Your task to perform on an android device: Show me popular games on the Play Store Image 0: 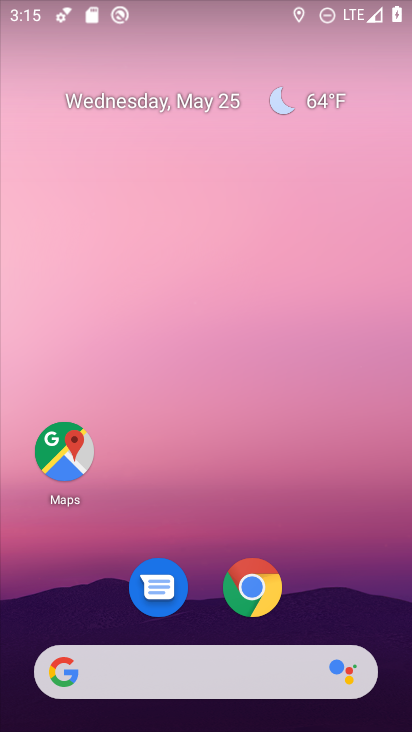
Step 0: drag from (339, 596) to (211, 206)
Your task to perform on an android device: Show me popular games on the Play Store Image 1: 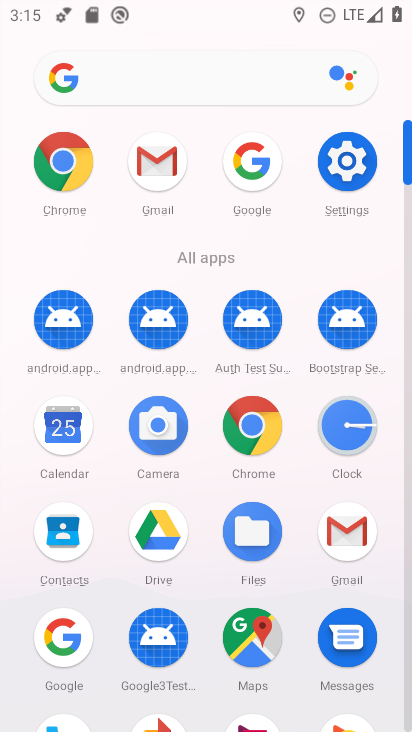
Step 1: click (409, 676)
Your task to perform on an android device: Show me popular games on the Play Store Image 2: 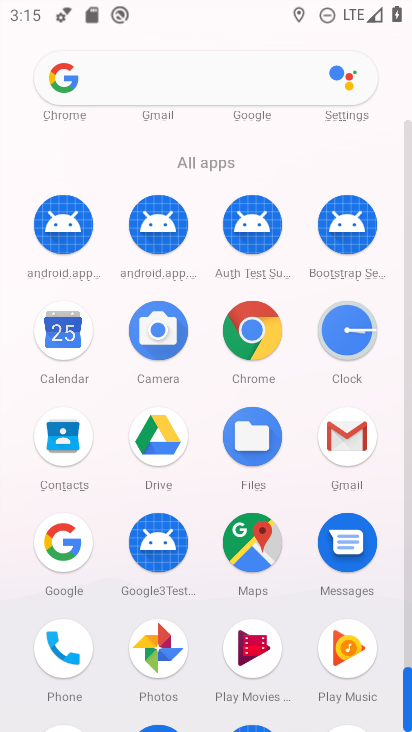
Step 2: drag from (398, 674) to (379, 512)
Your task to perform on an android device: Show me popular games on the Play Store Image 3: 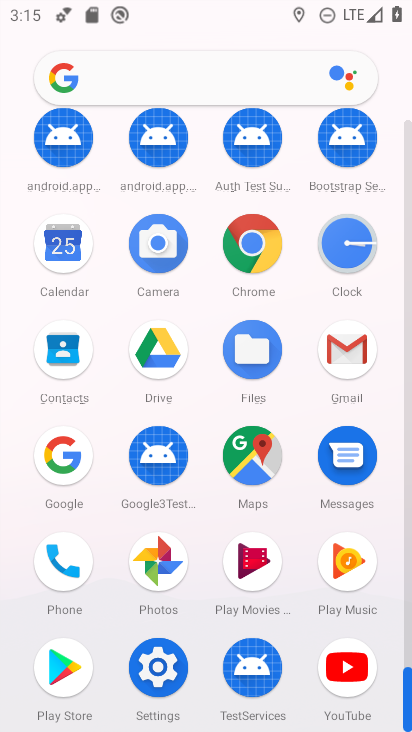
Step 3: click (64, 651)
Your task to perform on an android device: Show me popular games on the Play Store Image 4: 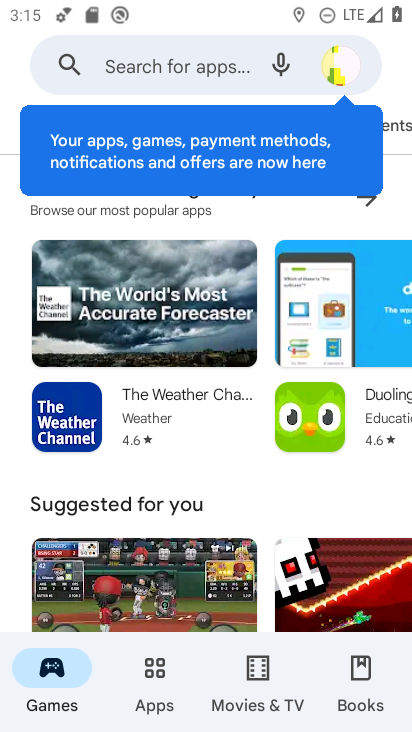
Step 4: drag from (262, 501) to (266, 685)
Your task to perform on an android device: Show me popular games on the Play Store Image 5: 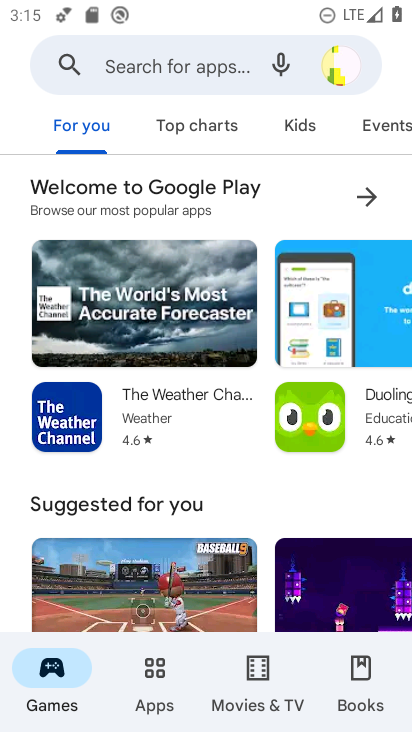
Step 5: click (207, 201)
Your task to perform on an android device: Show me popular games on the Play Store Image 6: 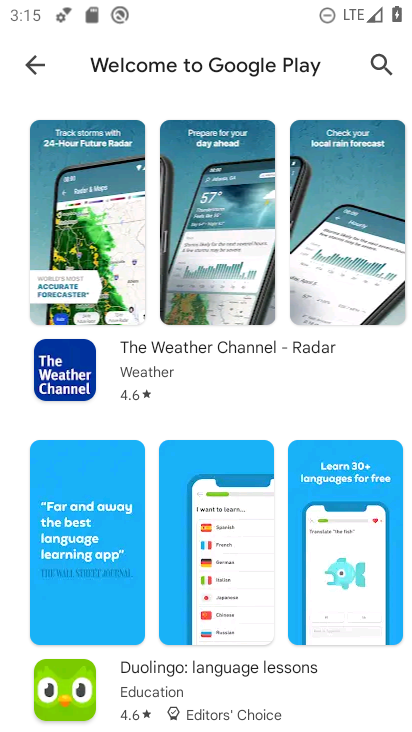
Step 6: task complete